Your task to perform on an android device: open chrome and create a bookmark for the current page Image 0: 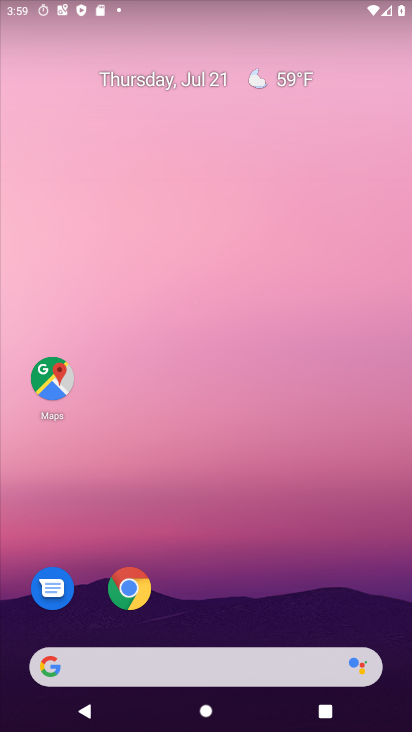
Step 0: click (136, 581)
Your task to perform on an android device: open chrome and create a bookmark for the current page Image 1: 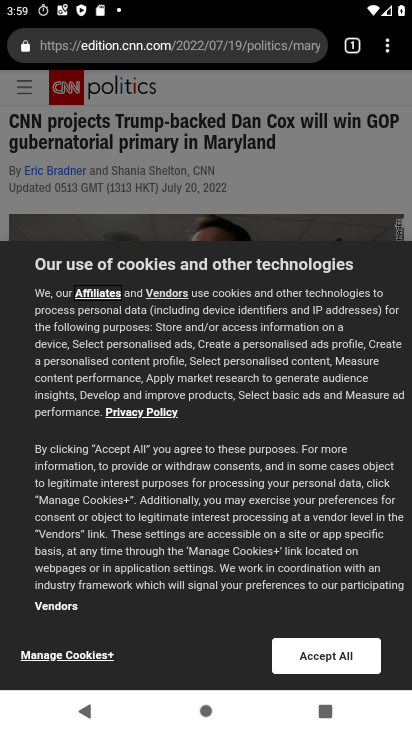
Step 1: click (382, 46)
Your task to perform on an android device: open chrome and create a bookmark for the current page Image 2: 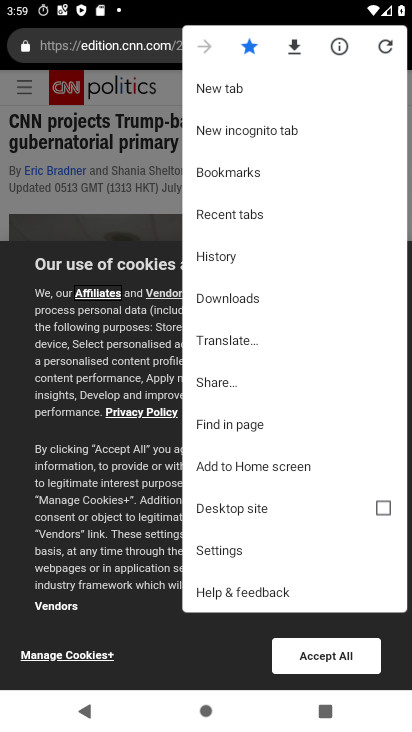
Step 2: task complete